Your task to perform on an android device: Go to Google maps Image 0: 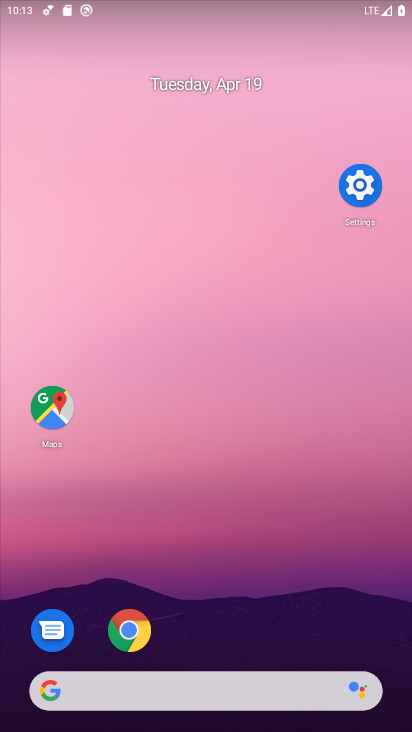
Step 0: drag from (260, 462) to (262, 191)
Your task to perform on an android device: Go to Google maps Image 1: 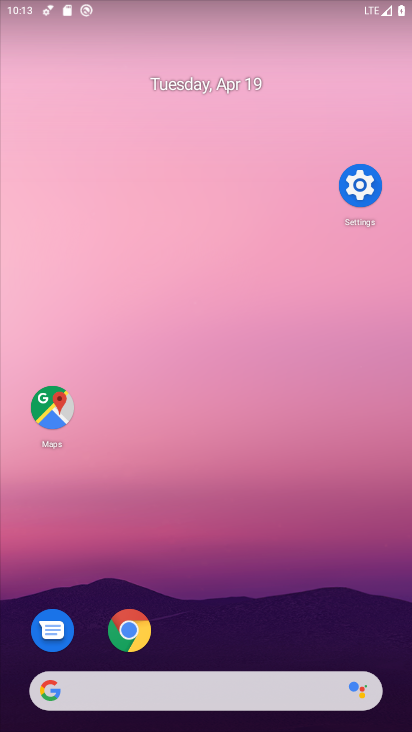
Step 1: drag from (213, 609) to (288, 128)
Your task to perform on an android device: Go to Google maps Image 2: 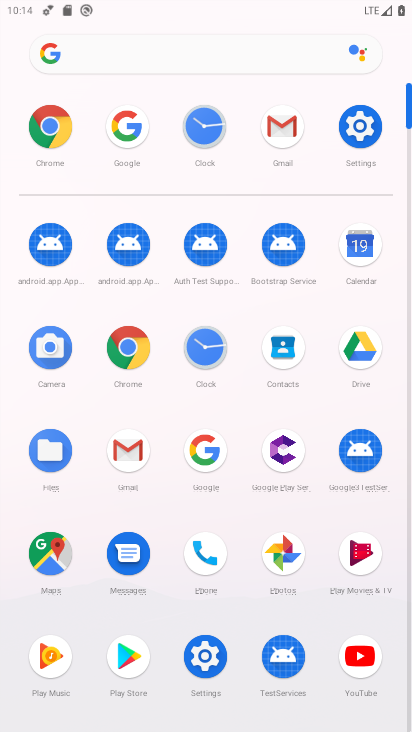
Step 2: click (46, 564)
Your task to perform on an android device: Go to Google maps Image 3: 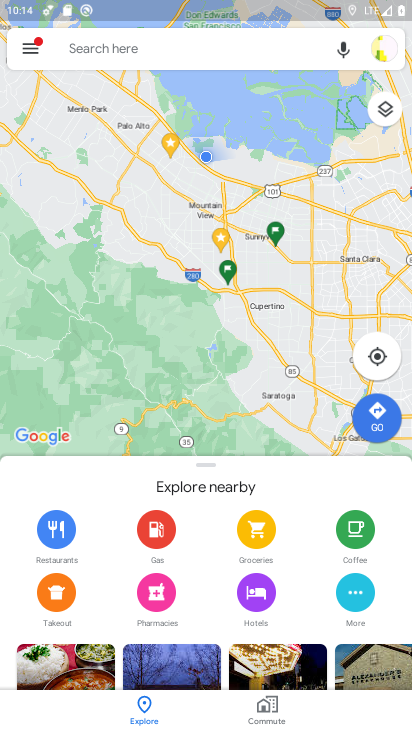
Step 3: task complete